Your task to perform on an android device: Go to Reddit.com Image 0: 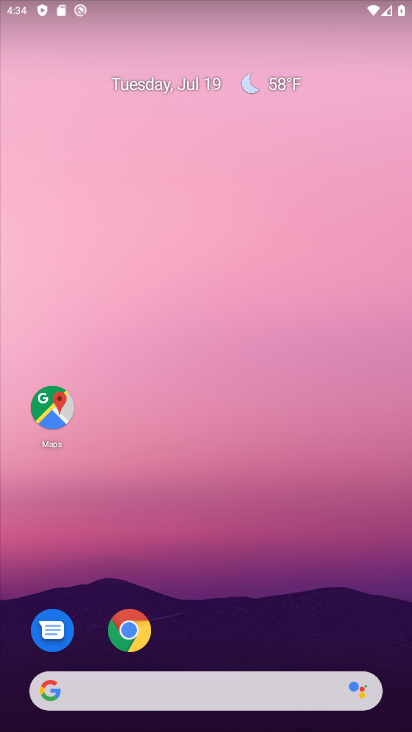
Step 0: drag from (222, 688) to (95, 191)
Your task to perform on an android device: Go to Reddit.com Image 1: 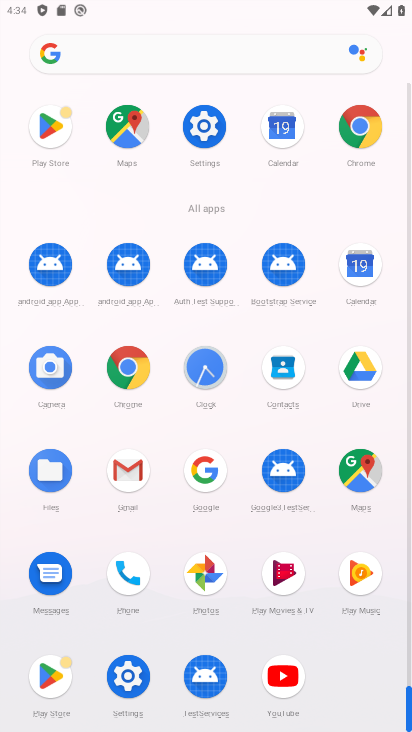
Step 1: click (125, 373)
Your task to perform on an android device: Go to Reddit.com Image 2: 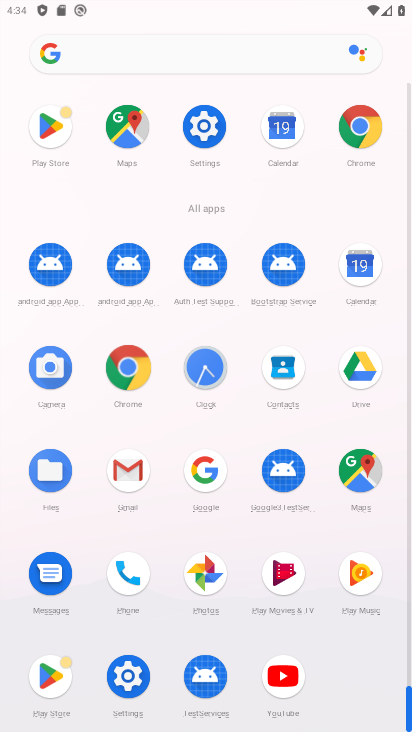
Step 2: click (125, 369)
Your task to perform on an android device: Go to Reddit.com Image 3: 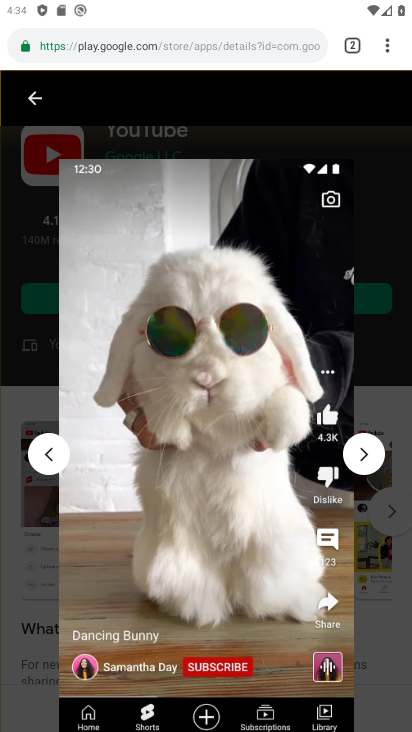
Step 3: drag from (388, 54) to (188, 82)
Your task to perform on an android device: Go to Reddit.com Image 4: 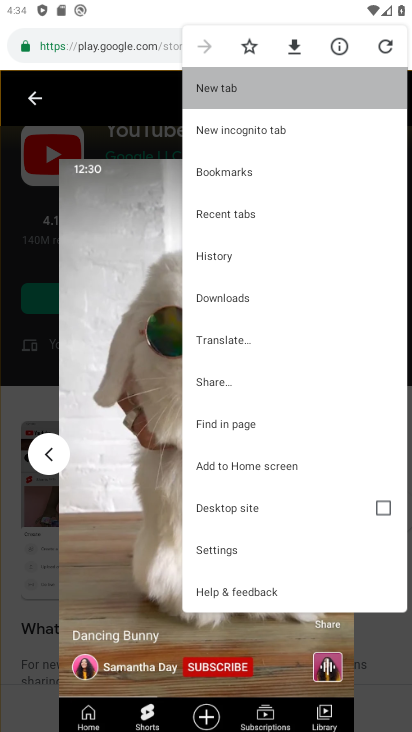
Step 4: click (193, 79)
Your task to perform on an android device: Go to Reddit.com Image 5: 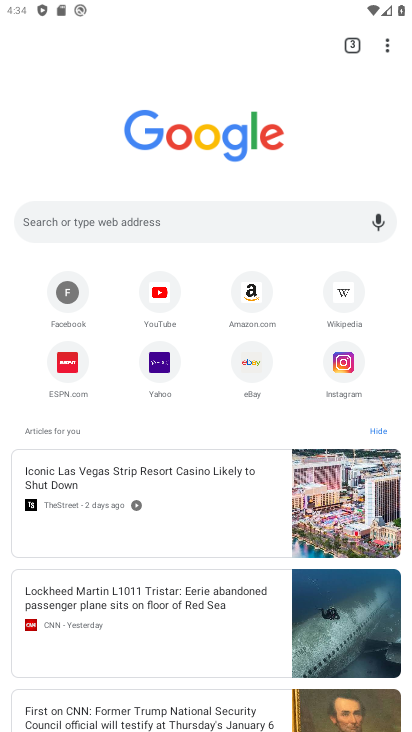
Step 5: click (63, 226)
Your task to perform on an android device: Go to Reddit.com Image 6: 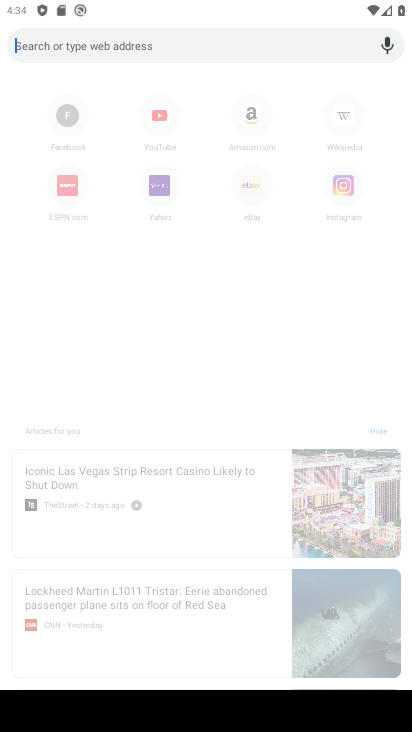
Step 6: type "reddit.com"
Your task to perform on an android device: Go to Reddit.com Image 7: 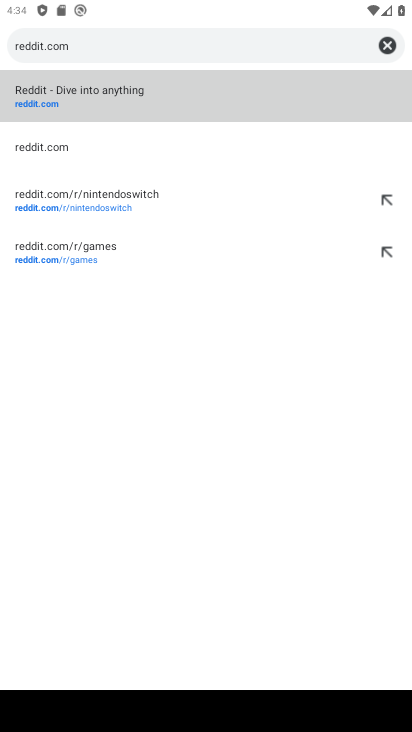
Step 7: click (64, 94)
Your task to perform on an android device: Go to Reddit.com Image 8: 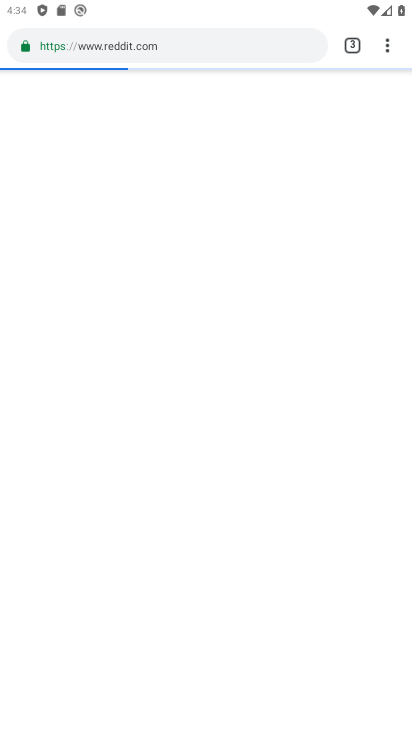
Step 8: task complete